Your task to perform on an android device: Open Google Chrome Image 0: 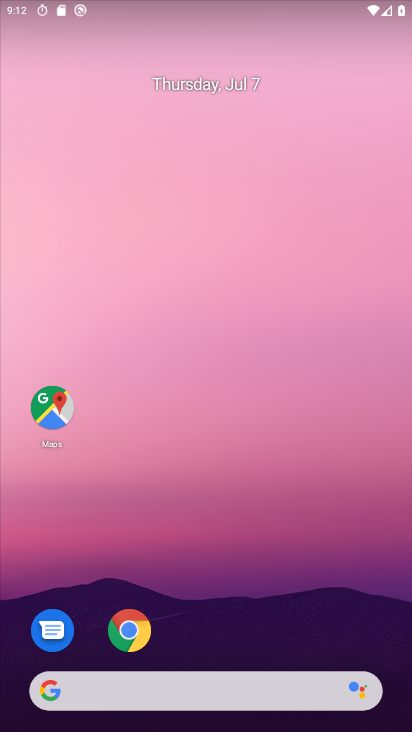
Step 0: click (133, 631)
Your task to perform on an android device: Open Google Chrome Image 1: 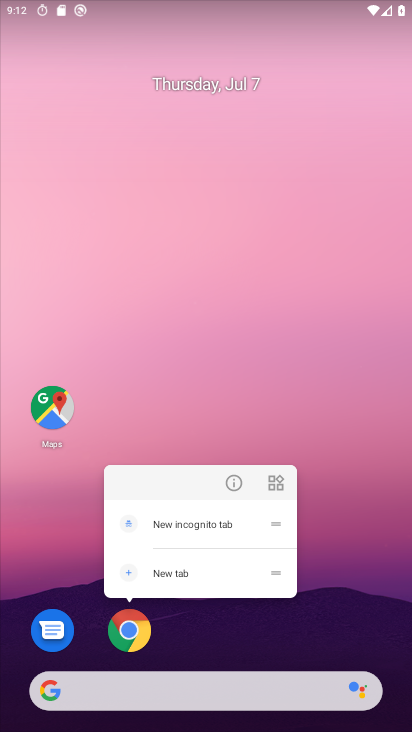
Step 1: click (132, 614)
Your task to perform on an android device: Open Google Chrome Image 2: 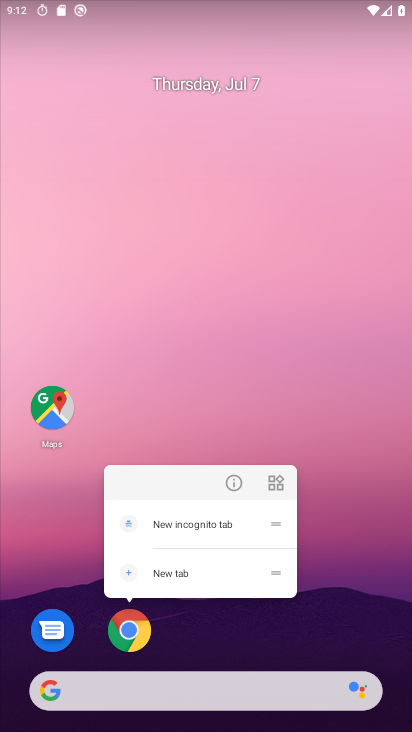
Step 2: click (125, 623)
Your task to perform on an android device: Open Google Chrome Image 3: 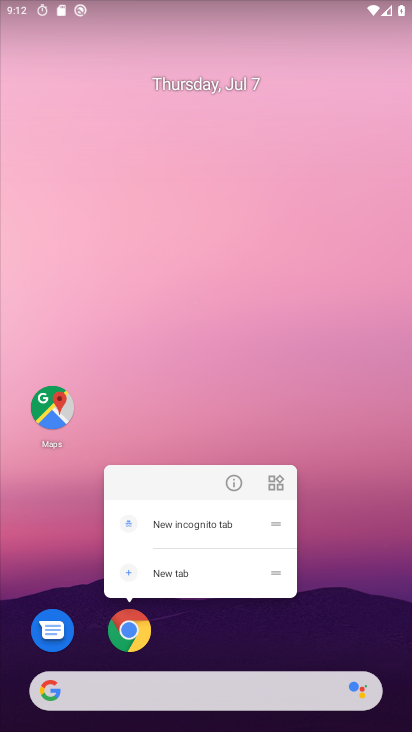
Step 3: click (117, 626)
Your task to perform on an android device: Open Google Chrome Image 4: 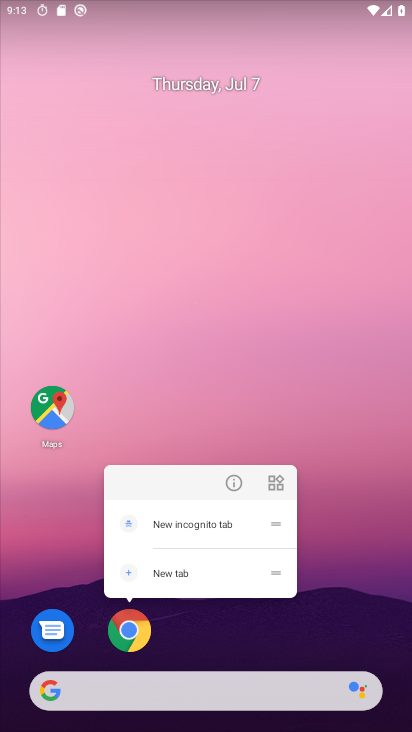
Step 4: click (119, 635)
Your task to perform on an android device: Open Google Chrome Image 5: 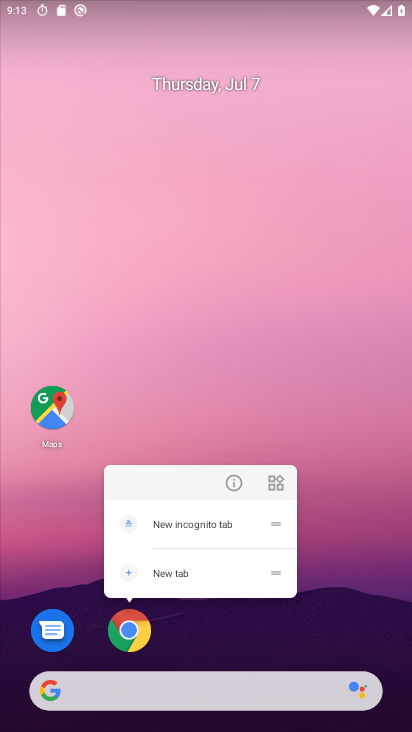
Step 5: click (133, 641)
Your task to perform on an android device: Open Google Chrome Image 6: 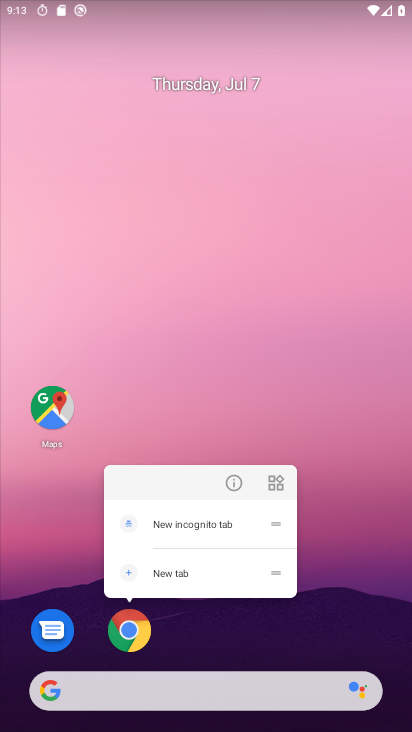
Step 6: task complete